Your task to perform on an android device: change the clock display to digital Image 0: 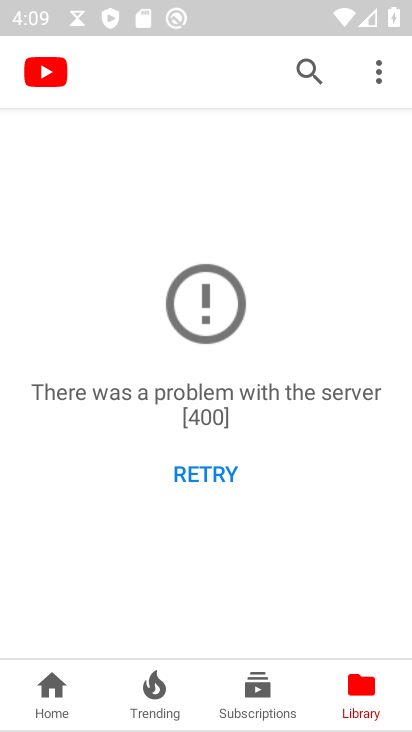
Step 0: press home button
Your task to perform on an android device: change the clock display to digital Image 1: 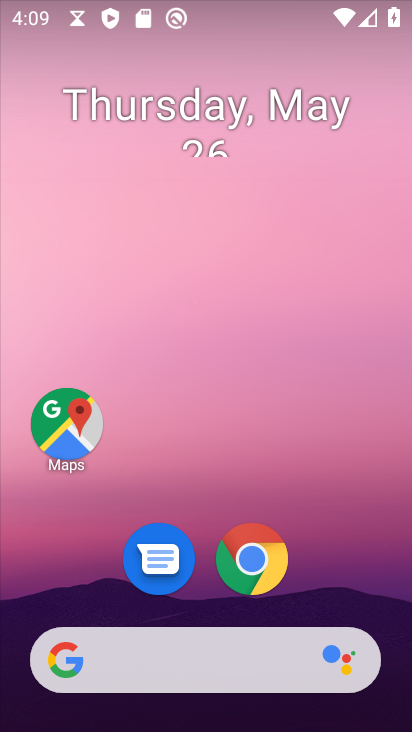
Step 1: drag from (357, 556) to (252, 11)
Your task to perform on an android device: change the clock display to digital Image 2: 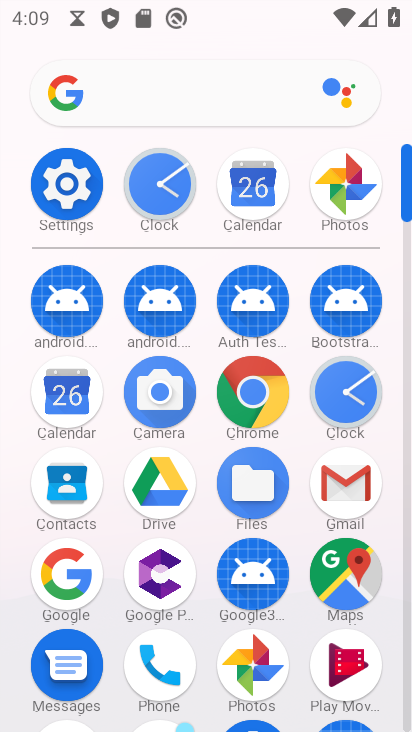
Step 2: click (156, 189)
Your task to perform on an android device: change the clock display to digital Image 3: 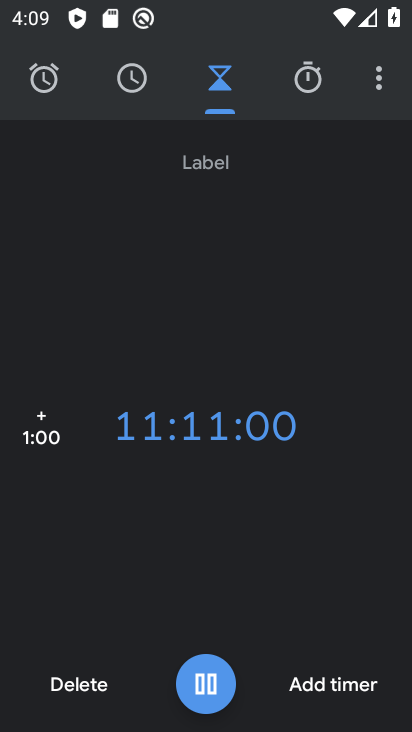
Step 3: click (377, 68)
Your task to perform on an android device: change the clock display to digital Image 4: 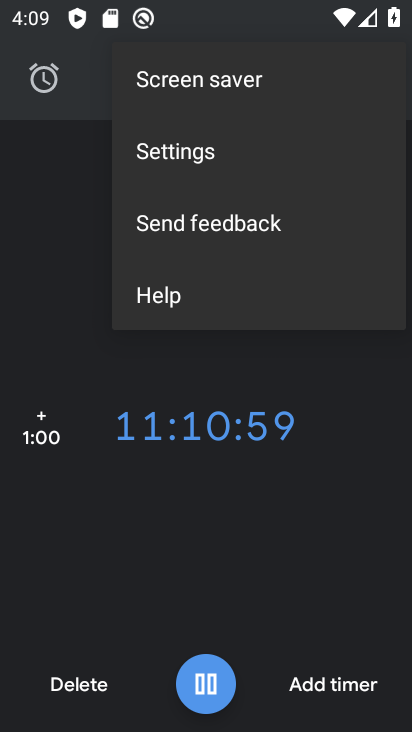
Step 4: click (254, 147)
Your task to perform on an android device: change the clock display to digital Image 5: 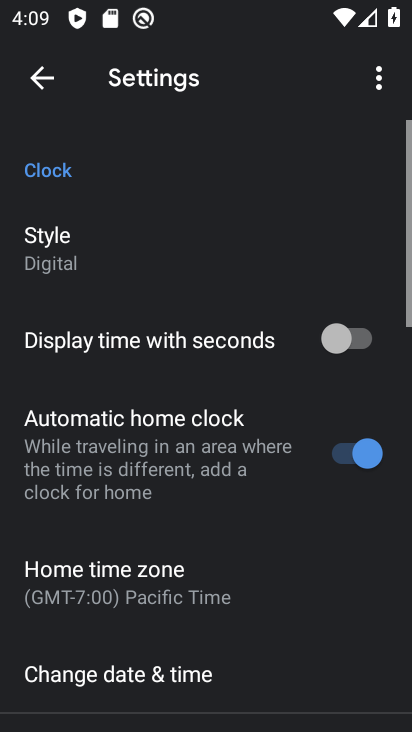
Step 5: click (82, 233)
Your task to perform on an android device: change the clock display to digital Image 6: 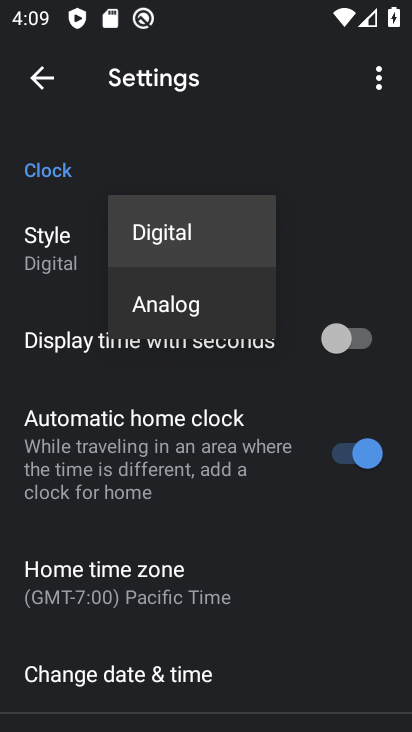
Step 6: click (211, 216)
Your task to perform on an android device: change the clock display to digital Image 7: 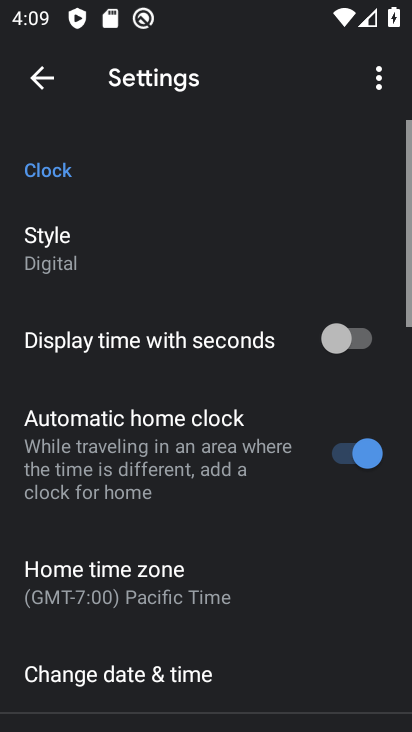
Step 7: task complete